Your task to perform on an android device: Open Google Chrome Image 0: 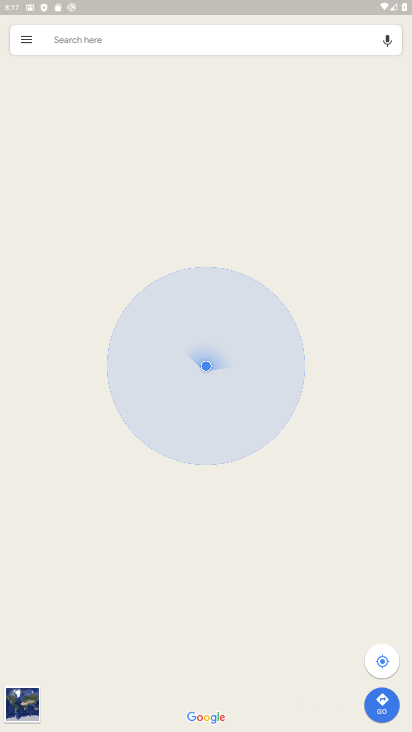
Step 0: press home button
Your task to perform on an android device: Open Google Chrome Image 1: 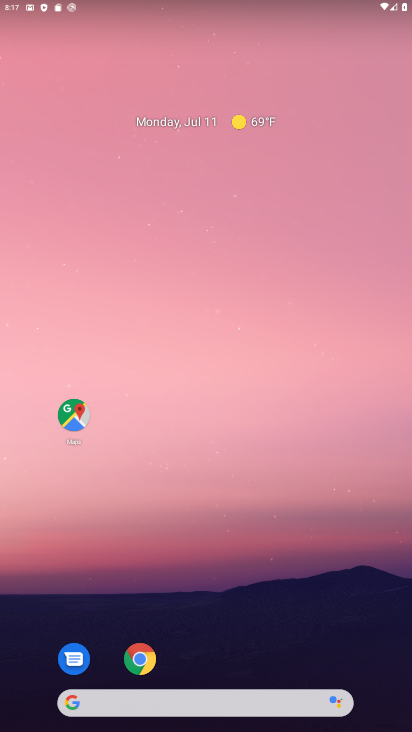
Step 1: drag from (220, 669) to (270, 144)
Your task to perform on an android device: Open Google Chrome Image 2: 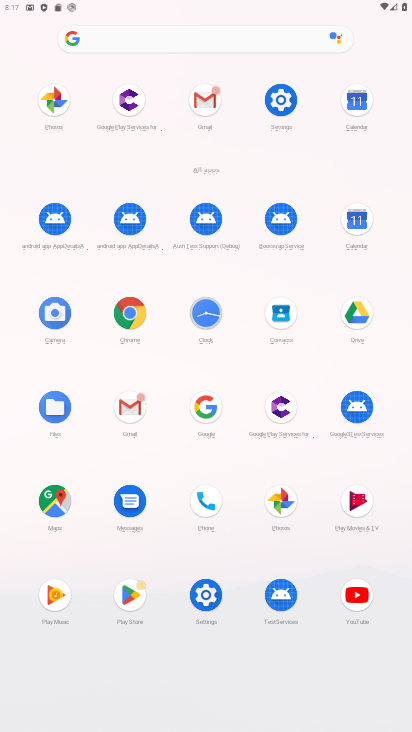
Step 2: click (131, 319)
Your task to perform on an android device: Open Google Chrome Image 3: 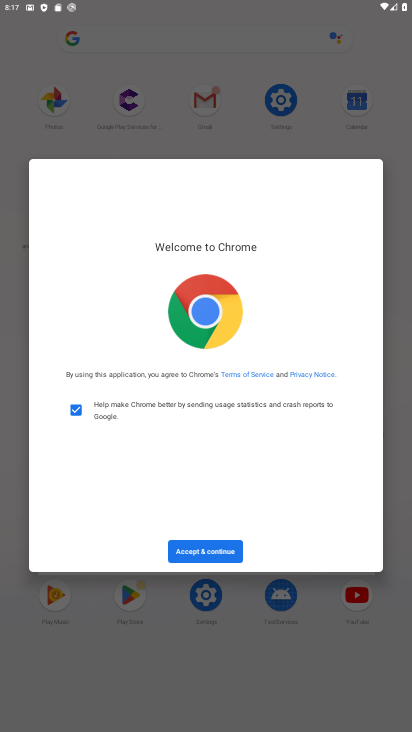
Step 3: click (206, 548)
Your task to perform on an android device: Open Google Chrome Image 4: 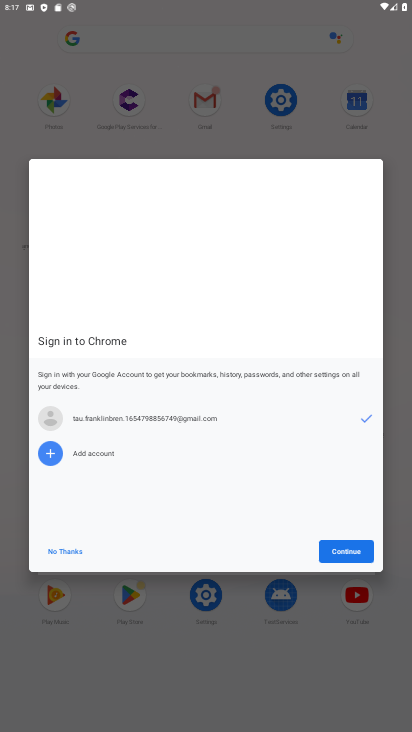
Step 4: click (334, 546)
Your task to perform on an android device: Open Google Chrome Image 5: 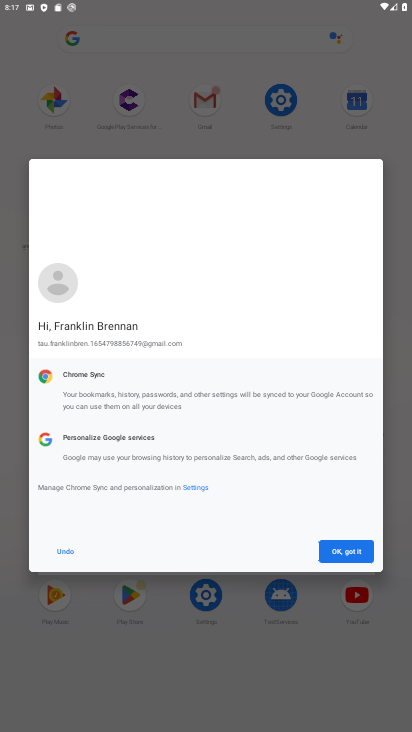
Step 5: click (352, 552)
Your task to perform on an android device: Open Google Chrome Image 6: 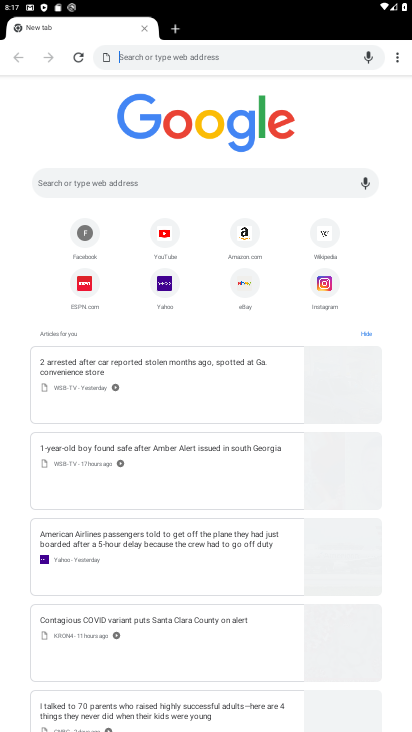
Step 6: task complete